Your task to perform on an android device: Open calendar and show me the fourth week of next month Image 0: 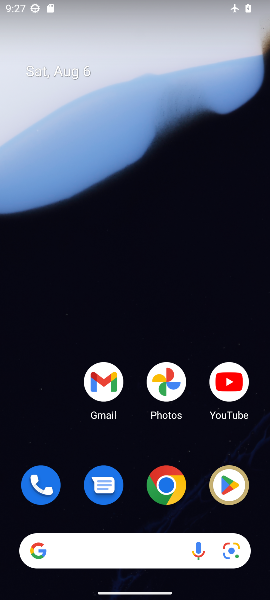
Step 0: drag from (144, 448) to (176, 0)
Your task to perform on an android device: Open calendar and show me the fourth week of next month Image 1: 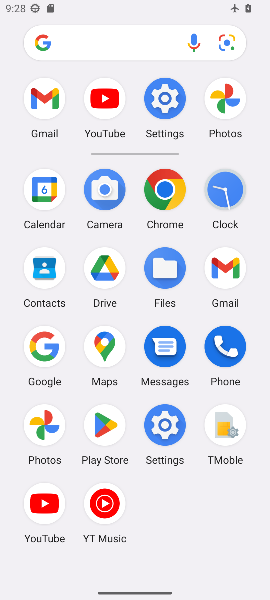
Step 1: click (44, 190)
Your task to perform on an android device: Open calendar and show me the fourth week of next month Image 2: 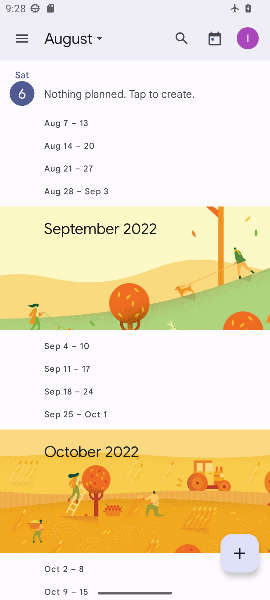
Step 2: click (82, 47)
Your task to perform on an android device: Open calendar and show me the fourth week of next month Image 3: 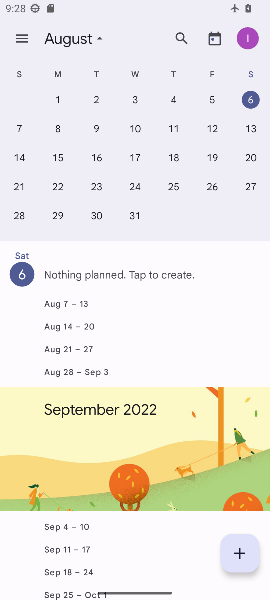
Step 3: drag from (249, 141) to (12, 124)
Your task to perform on an android device: Open calendar and show me the fourth week of next month Image 4: 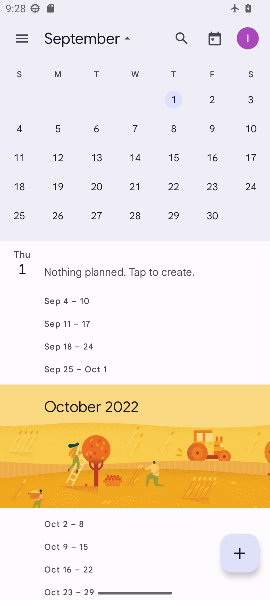
Step 4: click (23, 217)
Your task to perform on an android device: Open calendar and show me the fourth week of next month Image 5: 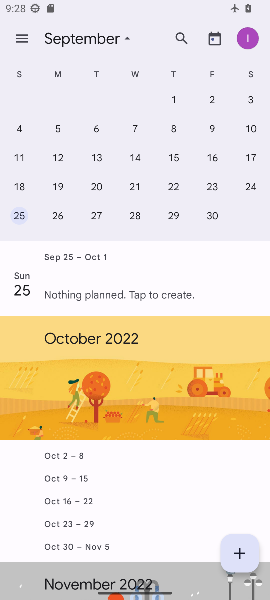
Step 5: click (18, 36)
Your task to perform on an android device: Open calendar and show me the fourth week of next month Image 6: 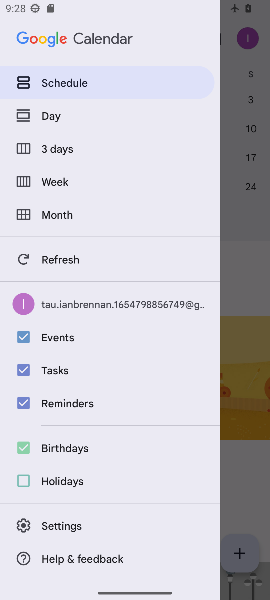
Step 6: click (52, 185)
Your task to perform on an android device: Open calendar and show me the fourth week of next month Image 7: 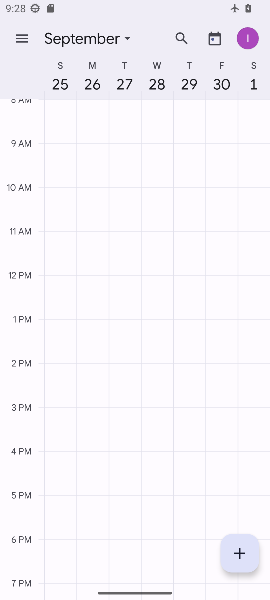
Step 7: task complete